Your task to perform on an android device: Go to battery settings Image 0: 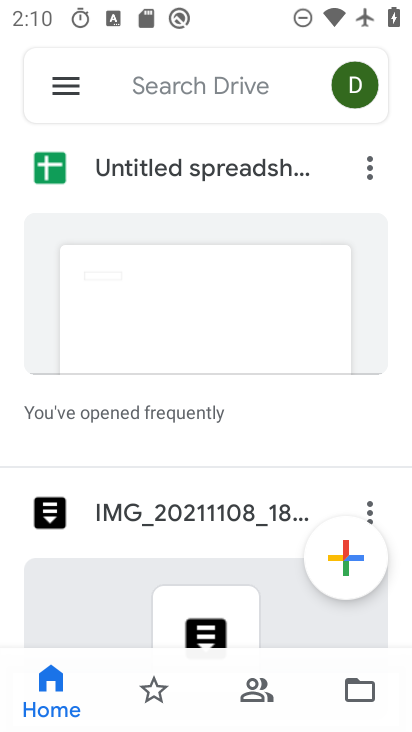
Step 0: press home button
Your task to perform on an android device: Go to battery settings Image 1: 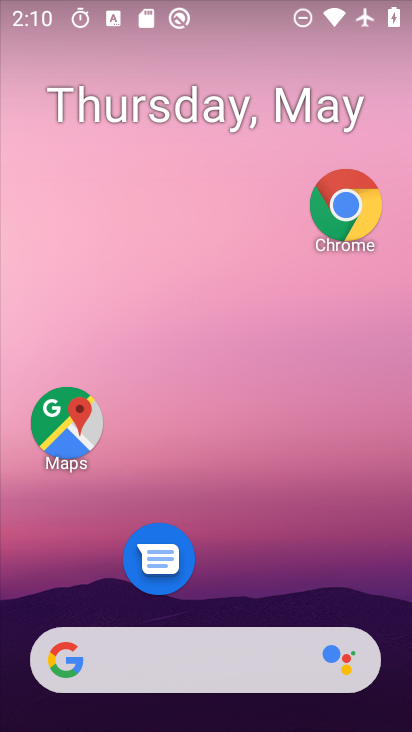
Step 1: drag from (267, 596) to (264, 162)
Your task to perform on an android device: Go to battery settings Image 2: 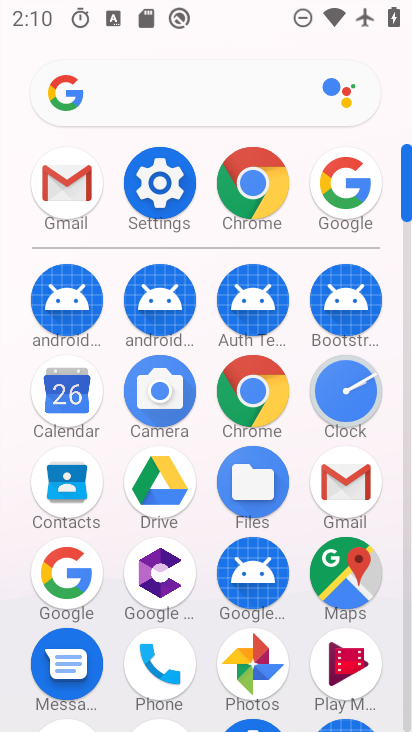
Step 2: click (169, 195)
Your task to perform on an android device: Go to battery settings Image 3: 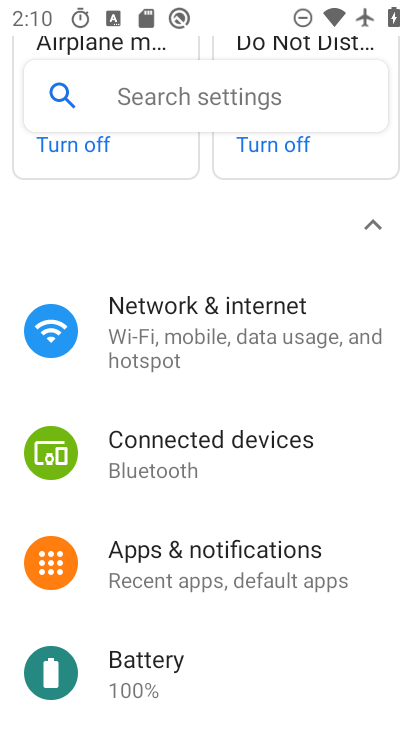
Step 3: drag from (187, 557) to (187, 372)
Your task to perform on an android device: Go to battery settings Image 4: 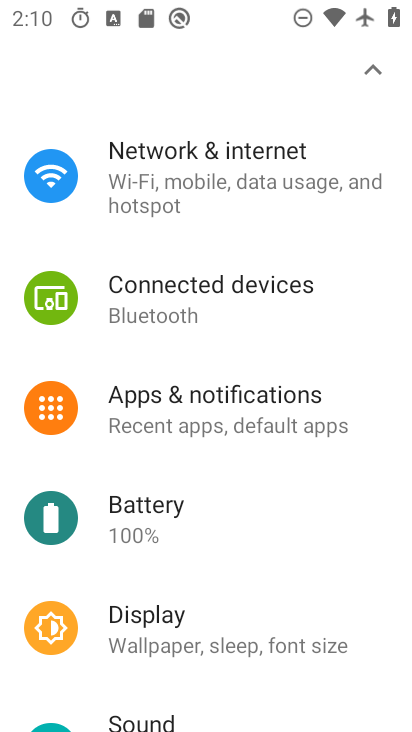
Step 4: click (199, 528)
Your task to perform on an android device: Go to battery settings Image 5: 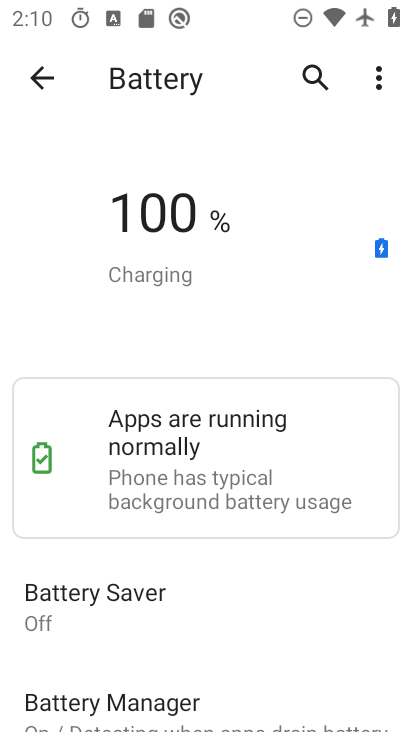
Step 5: task complete